Your task to perform on an android device: open chrome and create a bookmark for the current page Image 0: 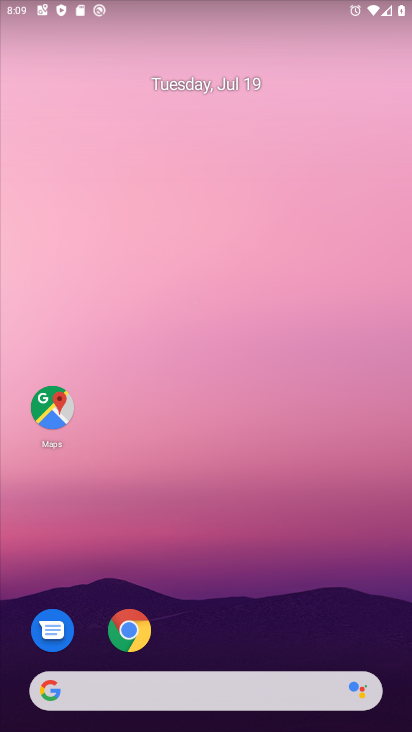
Step 0: click (125, 624)
Your task to perform on an android device: open chrome and create a bookmark for the current page Image 1: 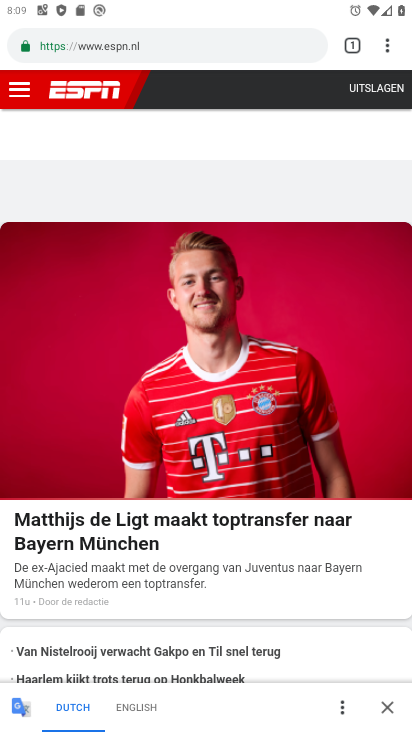
Step 1: click (389, 47)
Your task to perform on an android device: open chrome and create a bookmark for the current page Image 2: 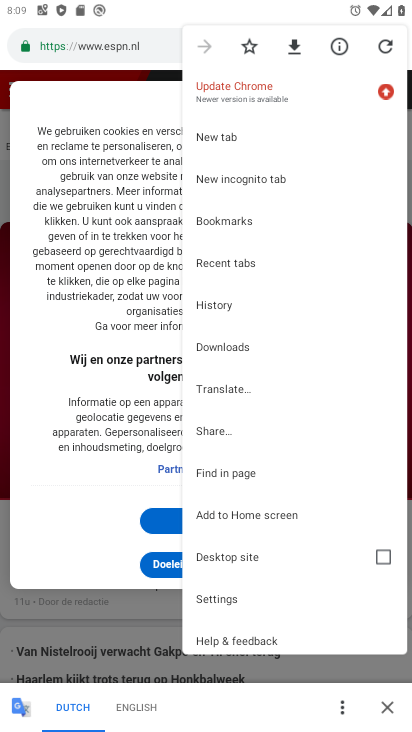
Step 2: click (249, 52)
Your task to perform on an android device: open chrome and create a bookmark for the current page Image 3: 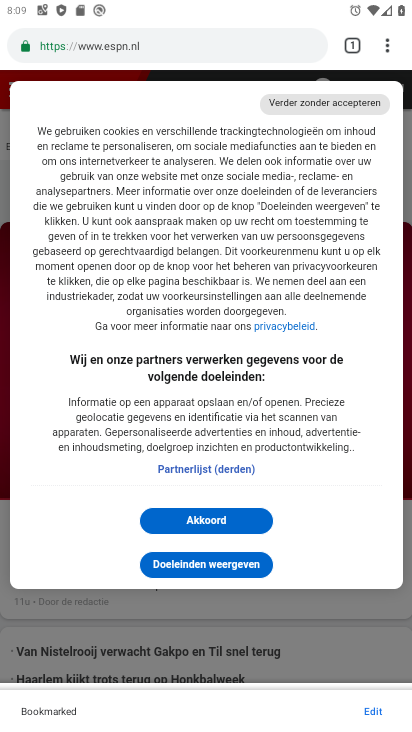
Step 3: task complete